Your task to perform on an android device: turn off priority inbox in the gmail app Image 0: 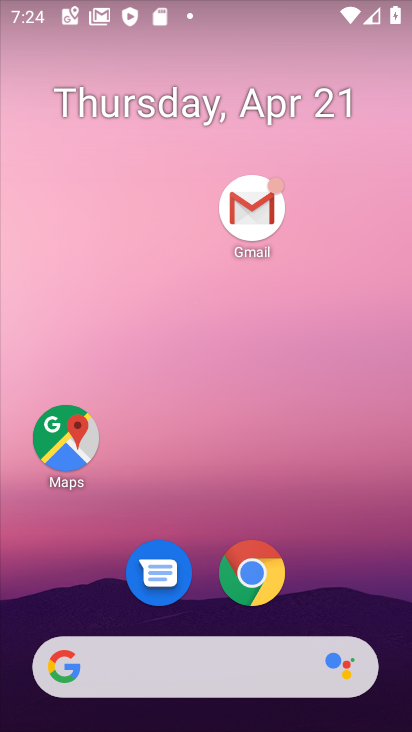
Step 0: drag from (338, 579) to (265, 121)
Your task to perform on an android device: turn off priority inbox in the gmail app Image 1: 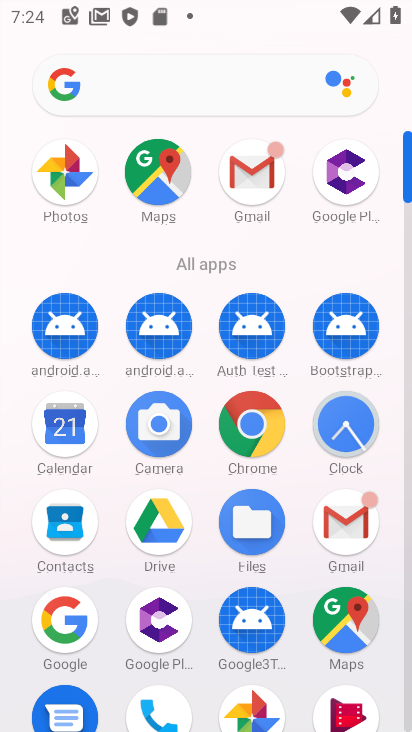
Step 1: click (262, 174)
Your task to perform on an android device: turn off priority inbox in the gmail app Image 2: 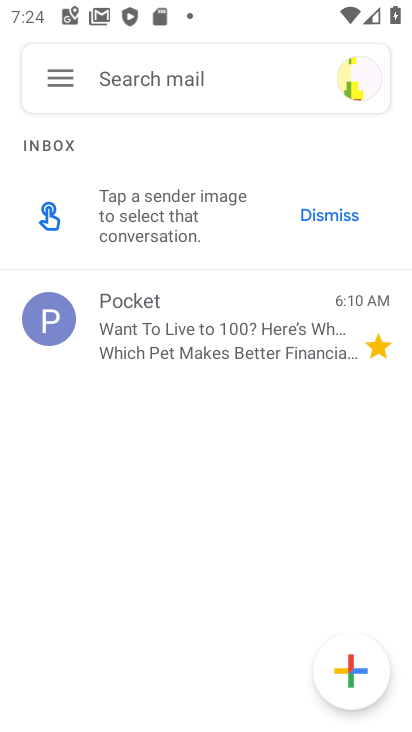
Step 2: click (49, 88)
Your task to perform on an android device: turn off priority inbox in the gmail app Image 3: 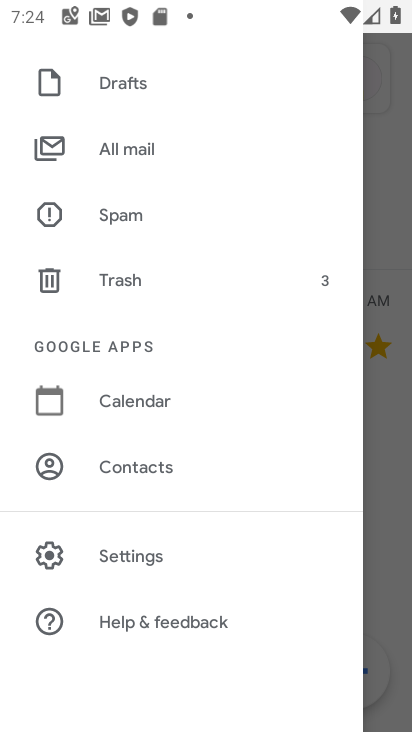
Step 3: click (155, 553)
Your task to perform on an android device: turn off priority inbox in the gmail app Image 4: 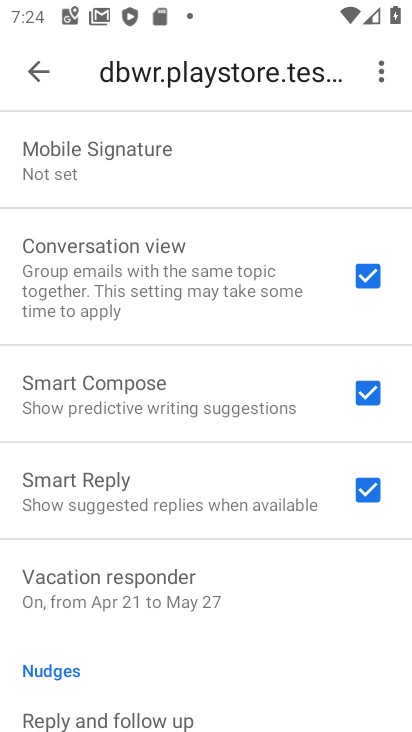
Step 4: drag from (152, 595) to (194, 241)
Your task to perform on an android device: turn off priority inbox in the gmail app Image 5: 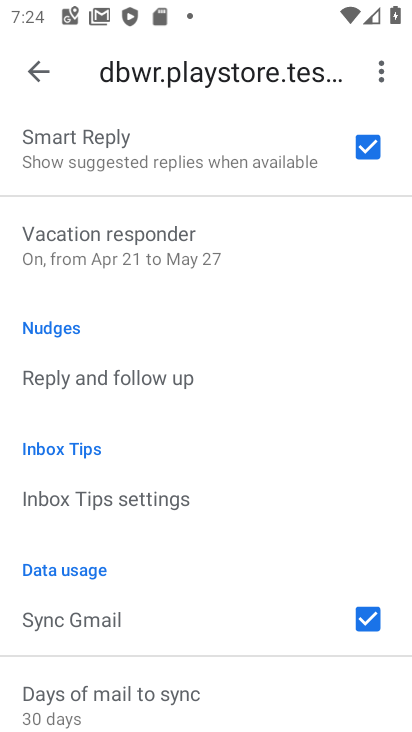
Step 5: drag from (194, 241) to (185, 640)
Your task to perform on an android device: turn off priority inbox in the gmail app Image 6: 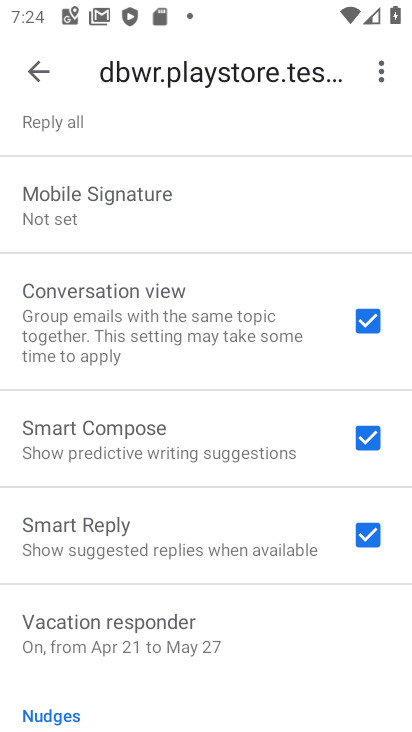
Step 6: drag from (155, 270) to (119, 647)
Your task to perform on an android device: turn off priority inbox in the gmail app Image 7: 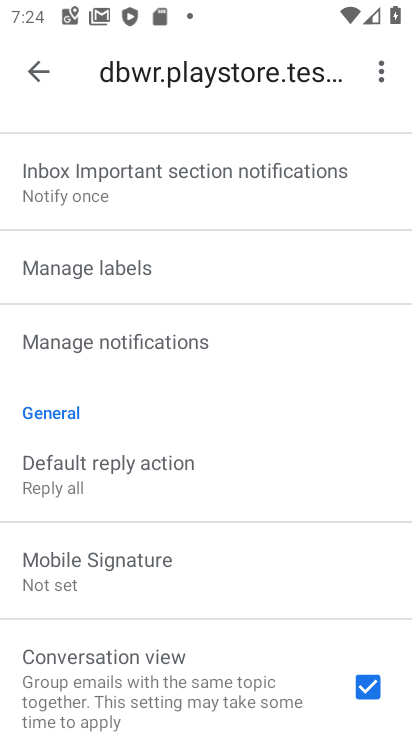
Step 7: drag from (206, 277) to (187, 598)
Your task to perform on an android device: turn off priority inbox in the gmail app Image 8: 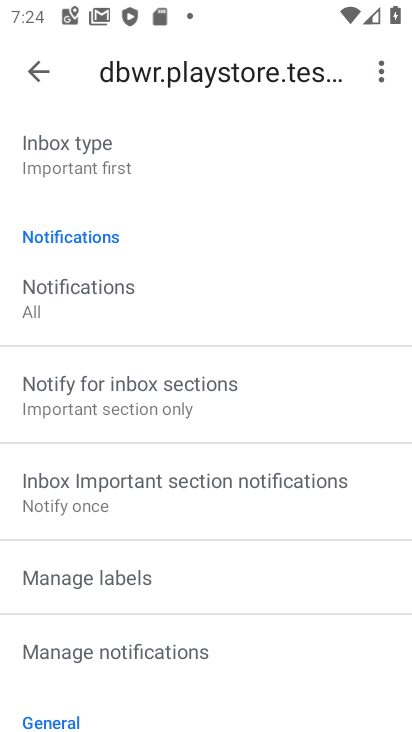
Step 8: drag from (197, 198) to (168, 633)
Your task to perform on an android device: turn off priority inbox in the gmail app Image 9: 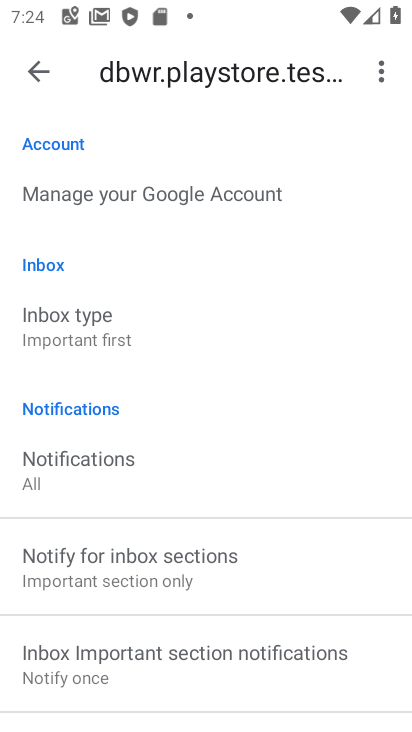
Step 9: click (103, 322)
Your task to perform on an android device: turn off priority inbox in the gmail app Image 10: 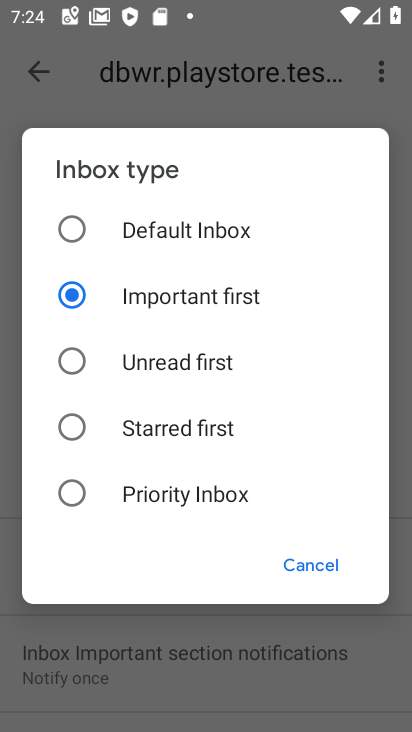
Step 10: task complete